Your task to perform on an android device: turn off improve location accuracy Image 0: 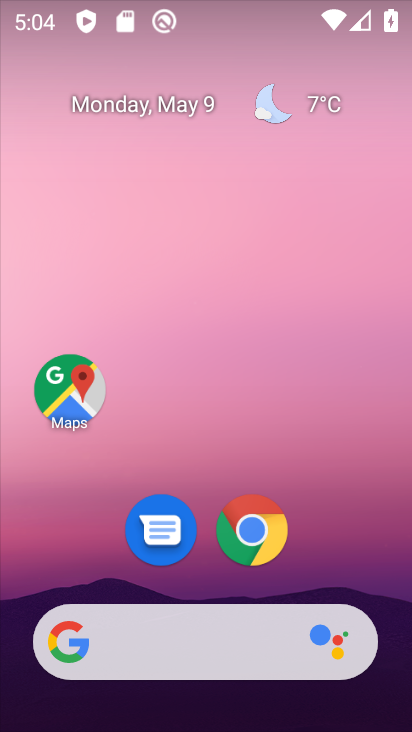
Step 0: drag from (302, 574) to (308, 103)
Your task to perform on an android device: turn off improve location accuracy Image 1: 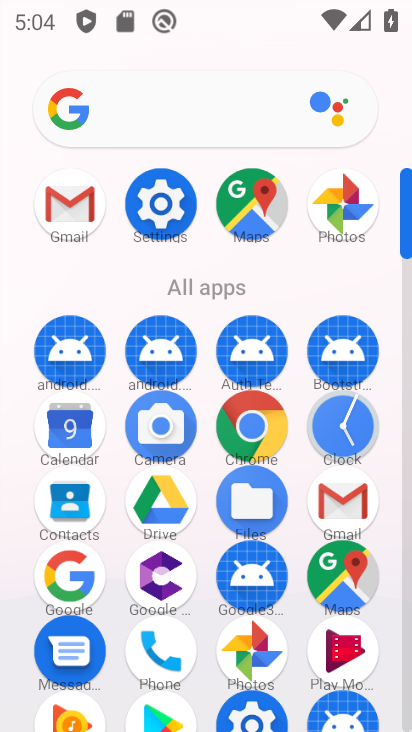
Step 1: click (176, 199)
Your task to perform on an android device: turn off improve location accuracy Image 2: 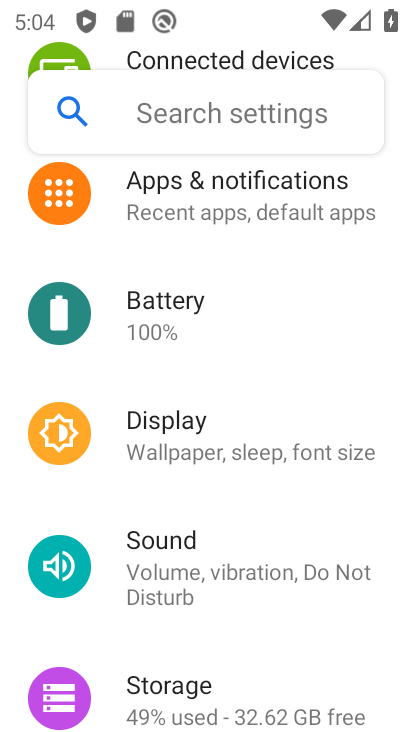
Step 2: drag from (239, 615) to (219, 247)
Your task to perform on an android device: turn off improve location accuracy Image 3: 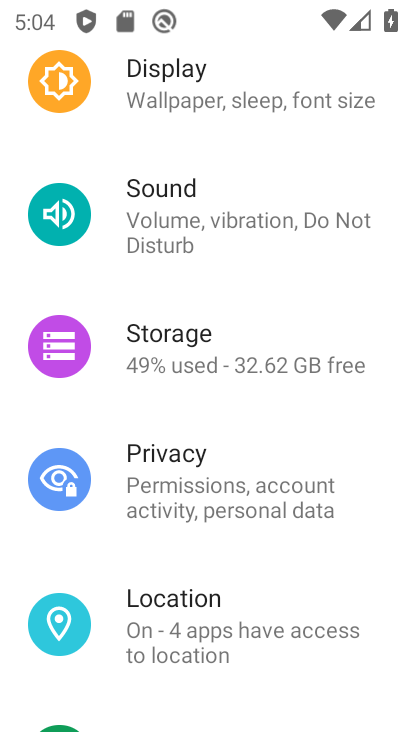
Step 3: click (215, 609)
Your task to perform on an android device: turn off improve location accuracy Image 4: 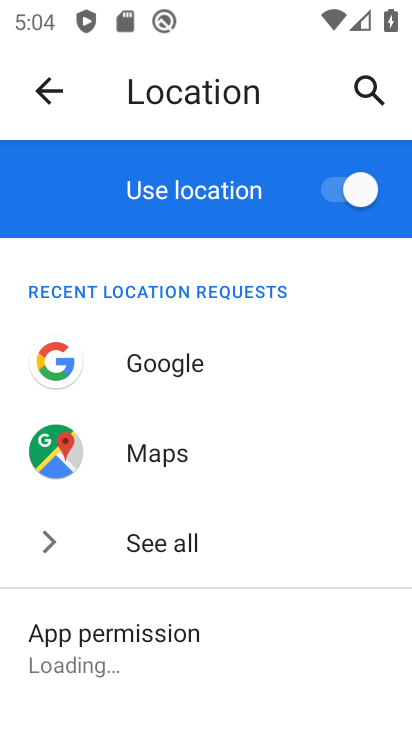
Step 4: drag from (237, 634) to (243, 346)
Your task to perform on an android device: turn off improve location accuracy Image 5: 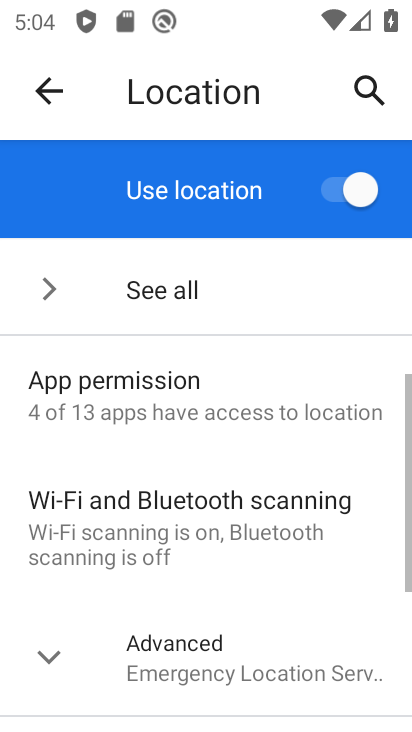
Step 5: click (242, 657)
Your task to perform on an android device: turn off improve location accuracy Image 6: 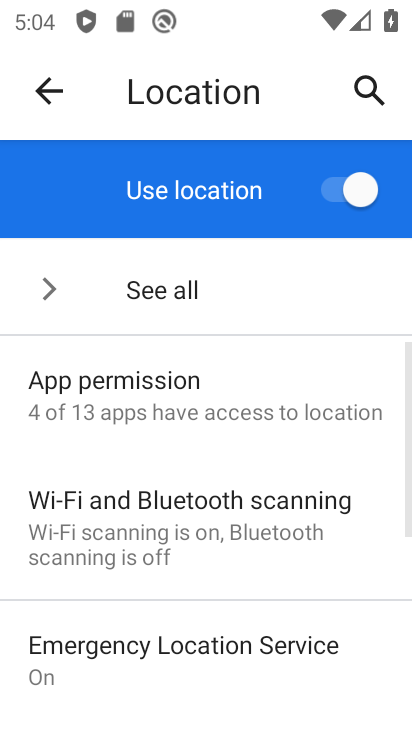
Step 6: drag from (261, 623) to (254, 338)
Your task to perform on an android device: turn off improve location accuracy Image 7: 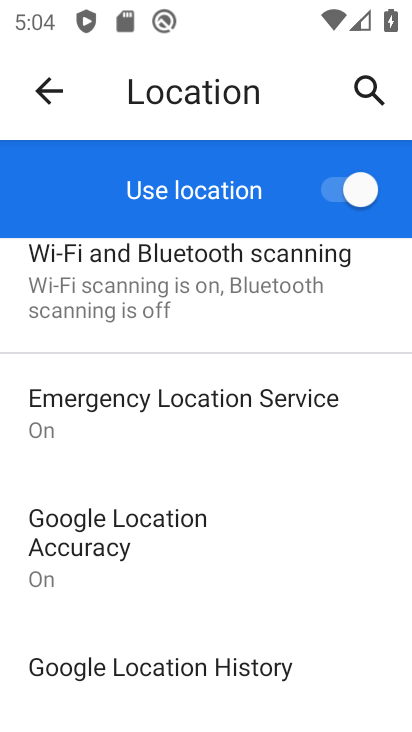
Step 7: drag from (282, 625) to (281, 404)
Your task to perform on an android device: turn off improve location accuracy Image 8: 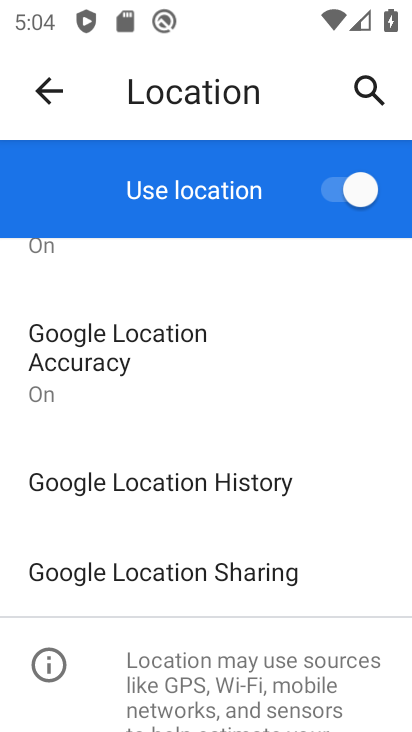
Step 8: click (145, 367)
Your task to perform on an android device: turn off improve location accuracy Image 9: 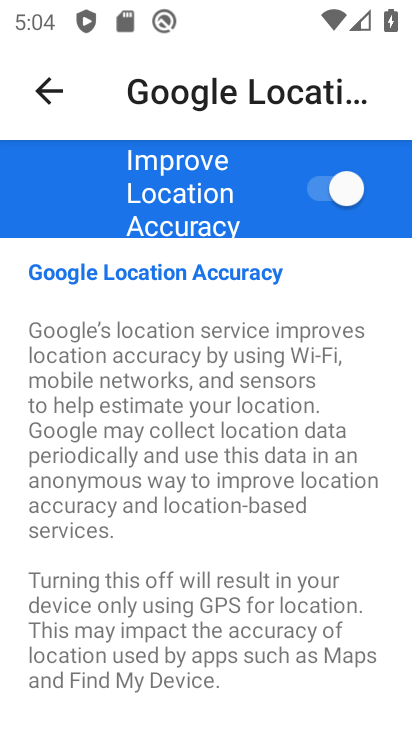
Step 9: click (316, 192)
Your task to perform on an android device: turn off improve location accuracy Image 10: 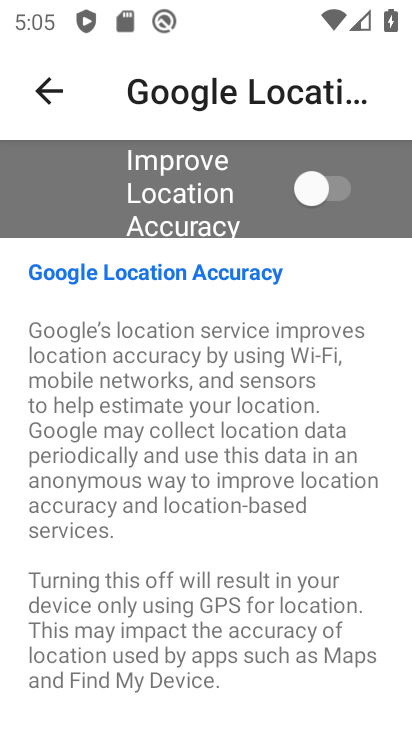
Step 10: task complete